Your task to perform on an android device: Go to Yahoo.com Image 0: 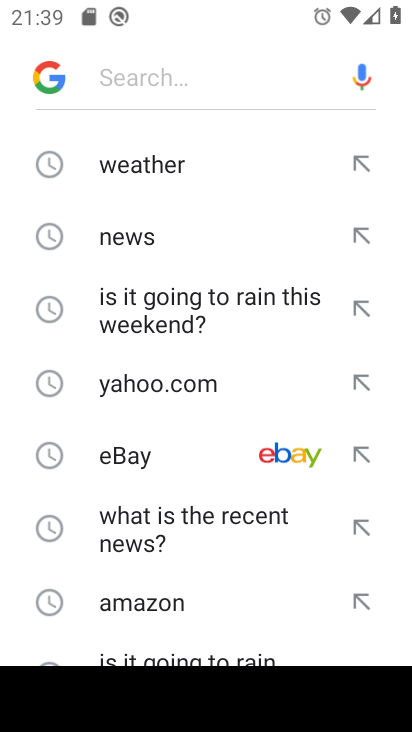
Step 0: press home button
Your task to perform on an android device: Go to Yahoo.com Image 1: 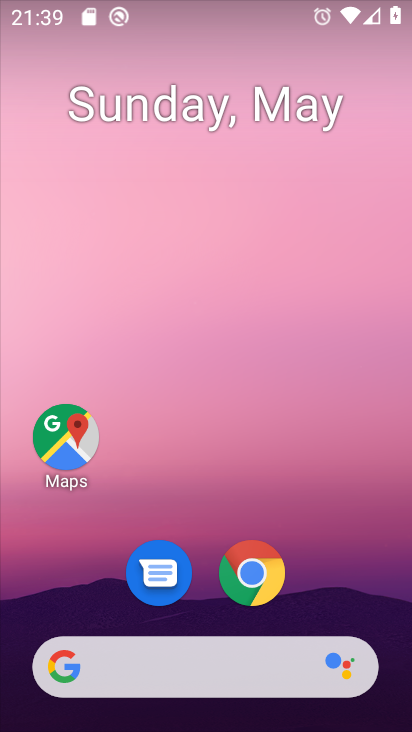
Step 1: click (252, 667)
Your task to perform on an android device: Go to Yahoo.com Image 2: 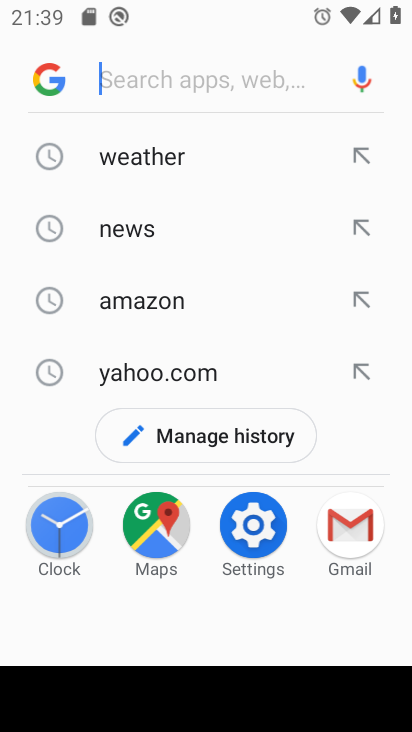
Step 2: type "yahoo.com"
Your task to perform on an android device: Go to Yahoo.com Image 3: 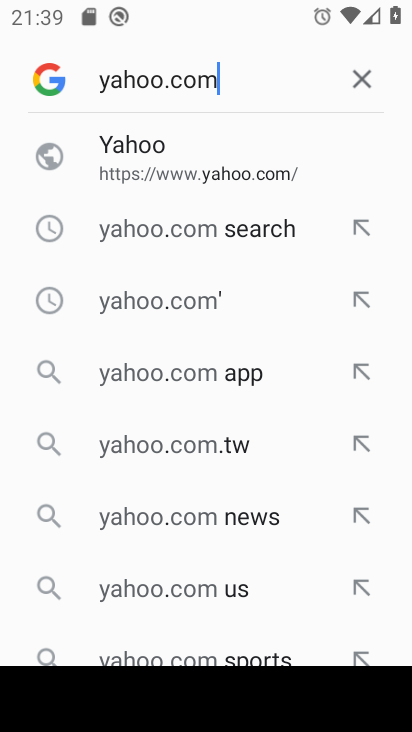
Step 3: click (162, 156)
Your task to perform on an android device: Go to Yahoo.com Image 4: 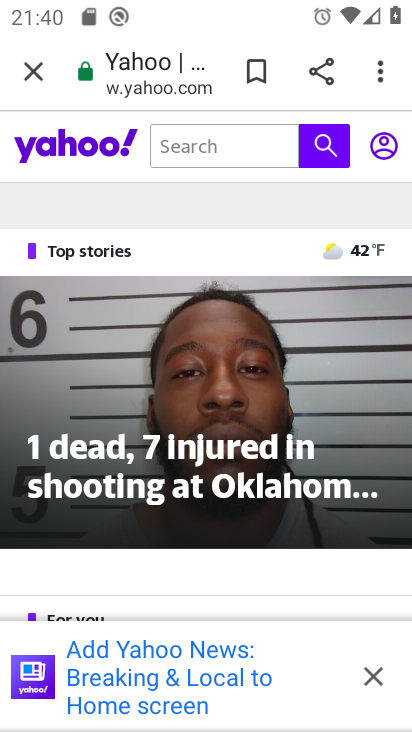
Step 4: task complete